Your task to perform on an android device: open device folders in google photos Image 0: 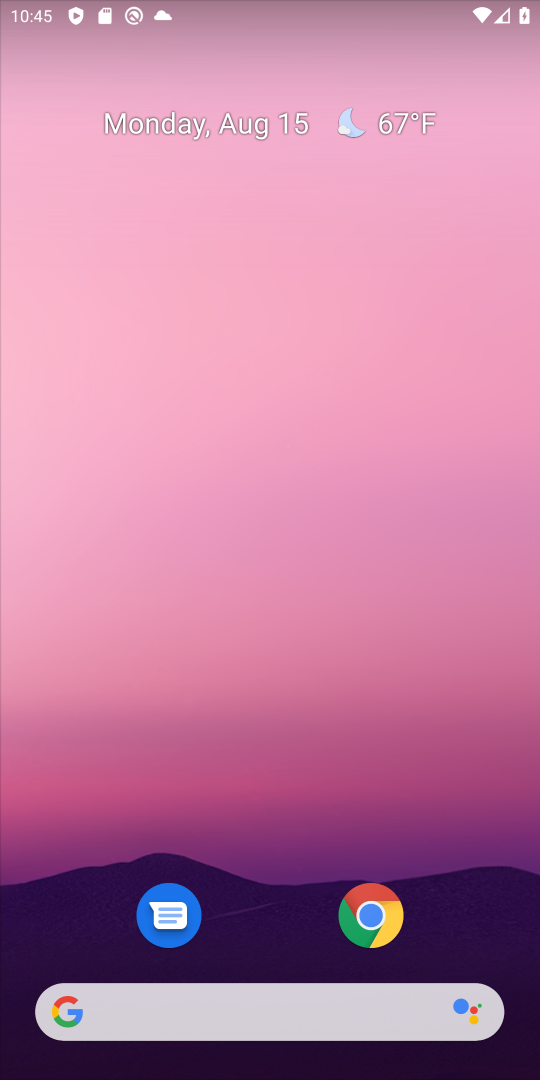
Step 0: drag from (492, 879) to (436, 138)
Your task to perform on an android device: open device folders in google photos Image 1: 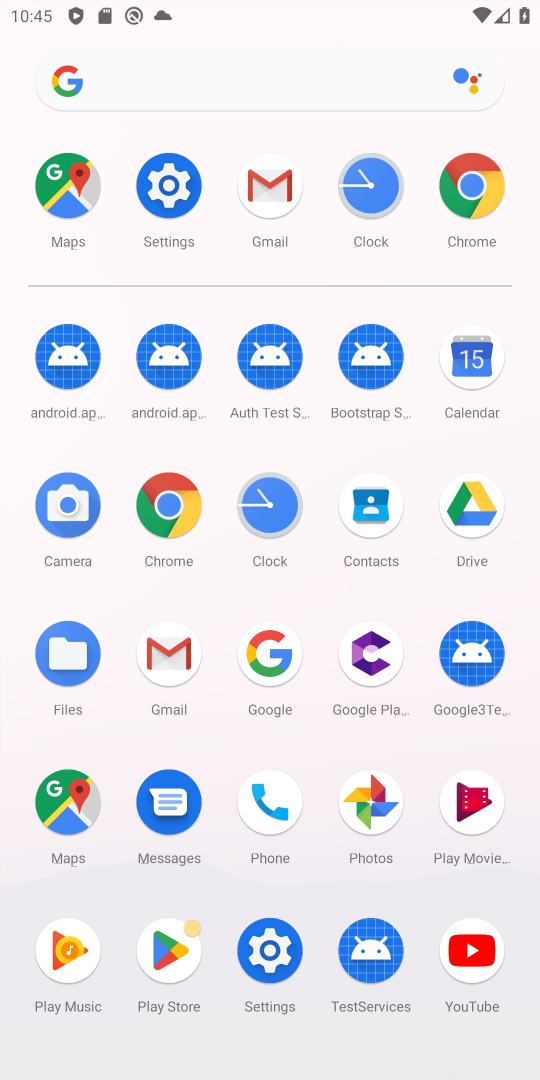
Step 1: click (365, 830)
Your task to perform on an android device: open device folders in google photos Image 2: 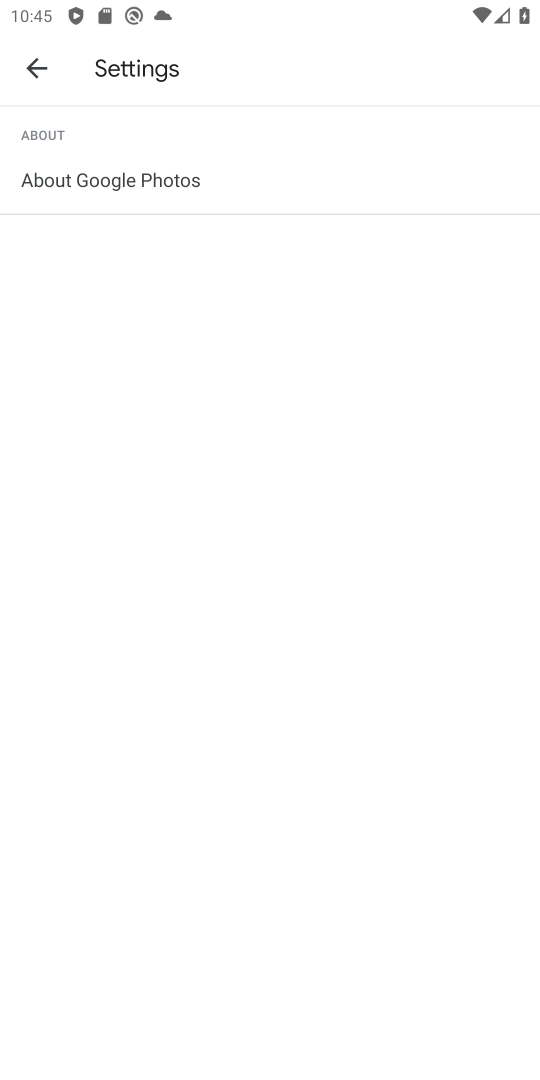
Step 2: click (24, 84)
Your task to perform on an android device: open device folders in google photos Image 3: 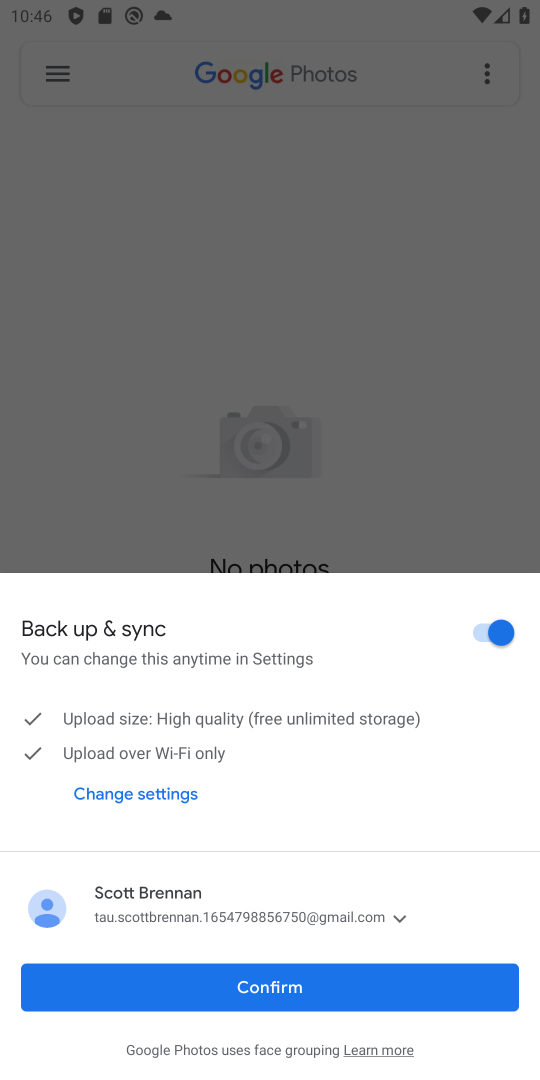
Step 3: click (467, 995)
Your task to perform on an android device: open device folders in google photos Image 4: 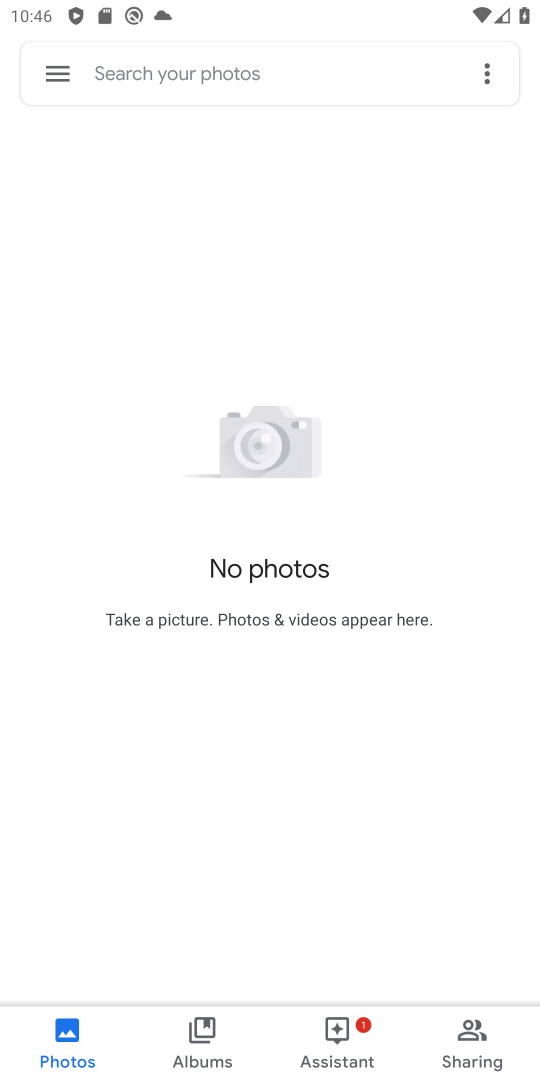
Step 4: click (47, 65)
Your task to perform on an android device: open device folders in google photos Image 5: 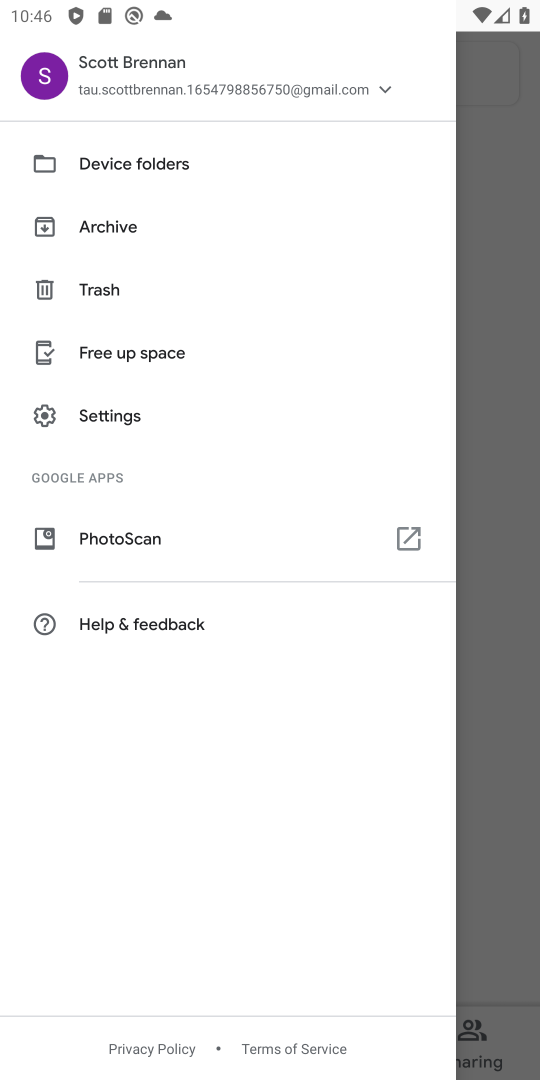
Step 5: click (170, 163)
Your task to perform on an android device: open device folders in google photos Image 6: 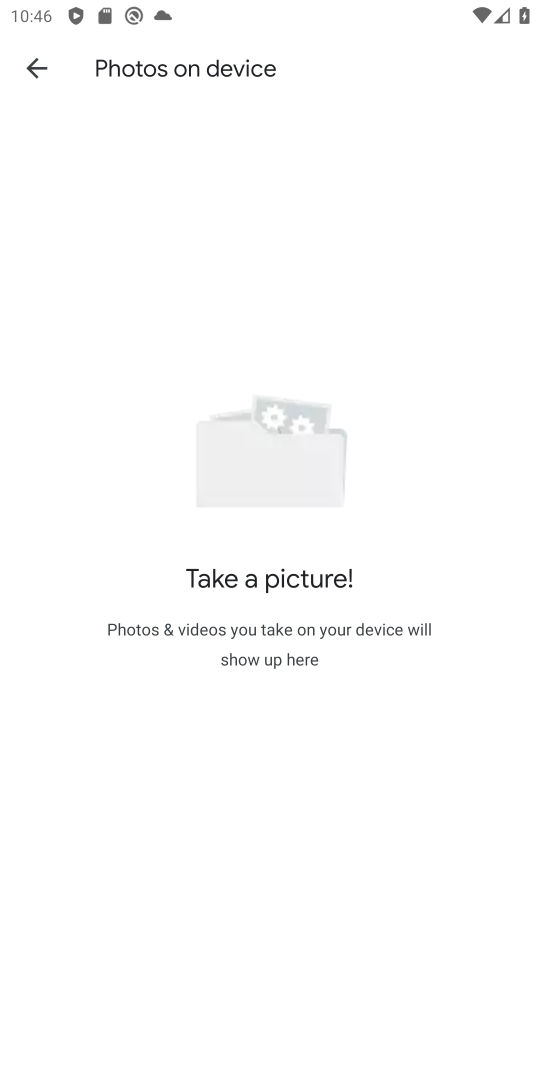
Step 6: task complete